Your task to perform on an android device: Open Android settings Image 0: 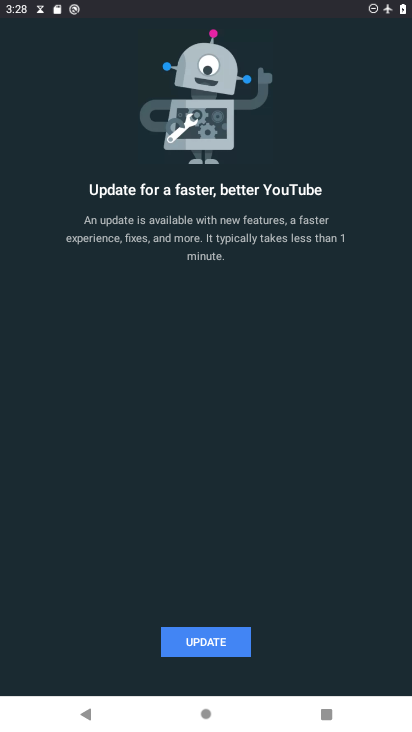
Step 0: press home button
Your task to perform on an android device: Open Android settings Image 1: 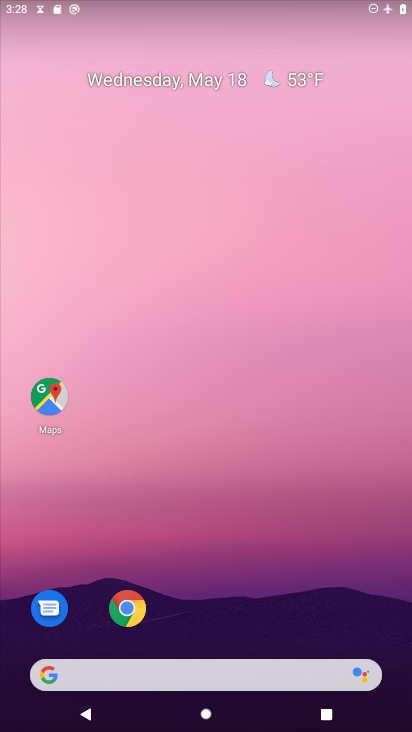
Step 1: drag from (158, 651) to (193, 172)
Your task to perform on an android device: Open Android settings Image 2: 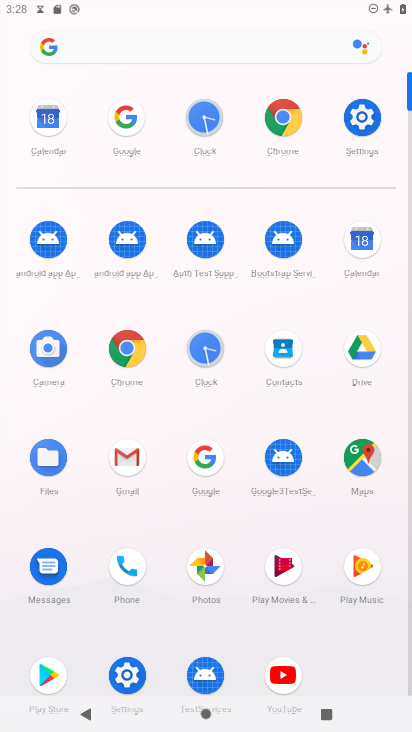
Step 2: click (363, 111)
Your task to perform on an android device: Open Android settings Image 3: 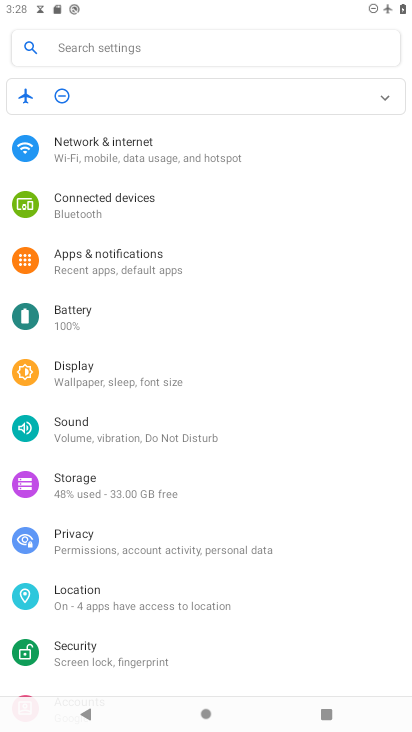
Step 3: task complete